Your task to perform on an android device: What's on my calendar today? Image 0: 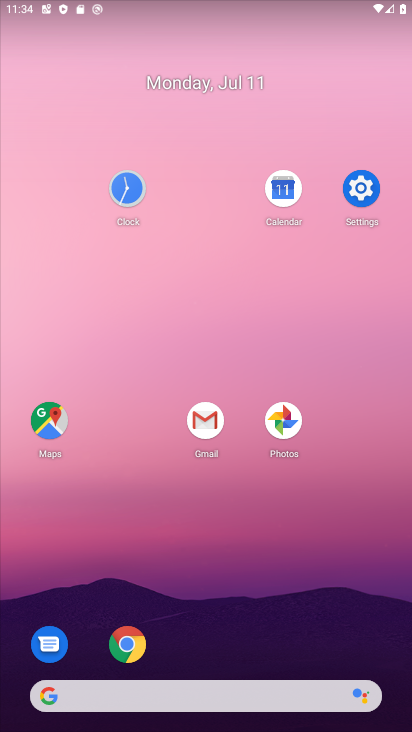
Step 0: click (292, 190)
Your task to perform on an android device: What's on my calendar today? Image 1: 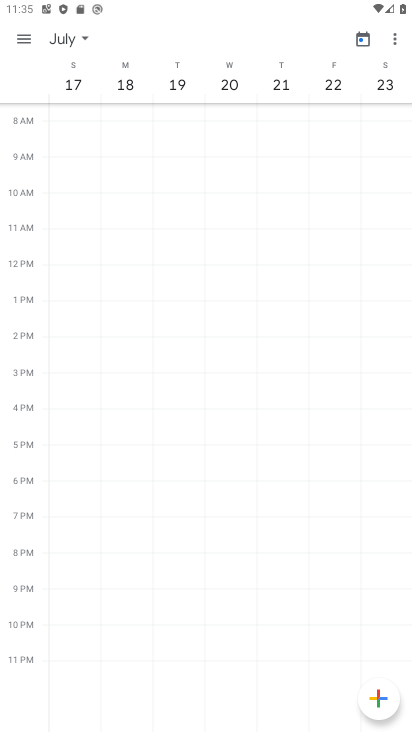
Step 1: press home button
Your task to perform on an android device: What's on my calendar today? Image 2: 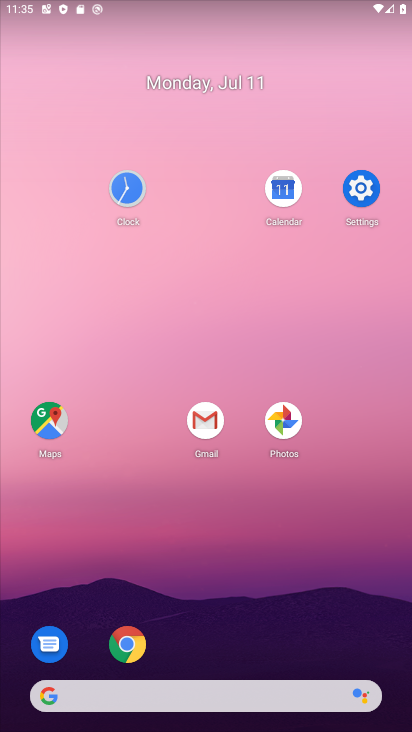
Step 2: click (297, 183)
Your task to perform on an android device: What's on my calendar today? Image 3: 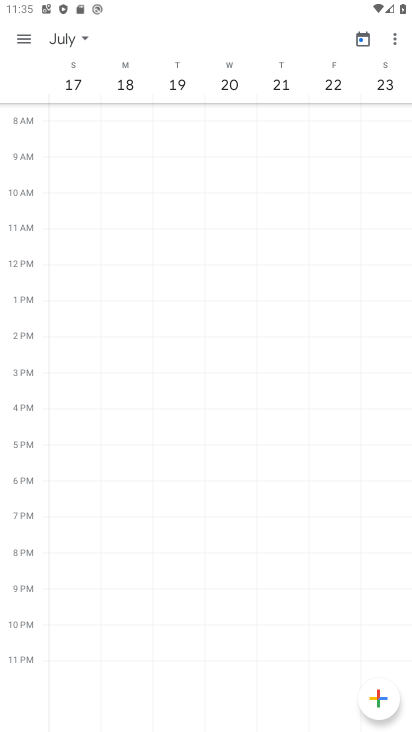
Step 3: drag from (72, 85) to (398, 90)
Your task to perform on an android device: What's on my calendar today? Image 4: 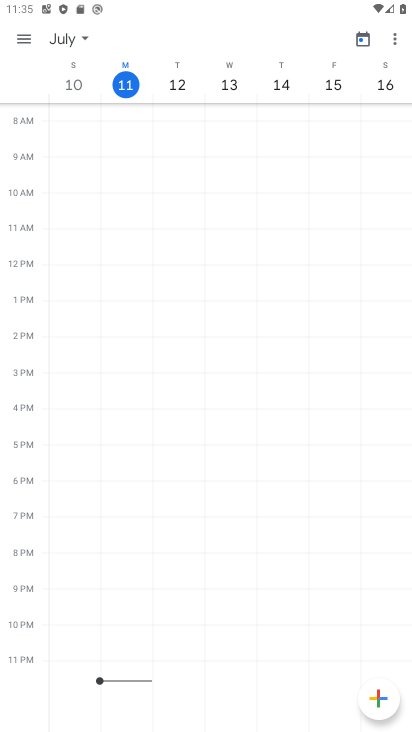
Step 4: click (124, 80)
Your task to perform on an android device: What's on my calendar today? Image 5: 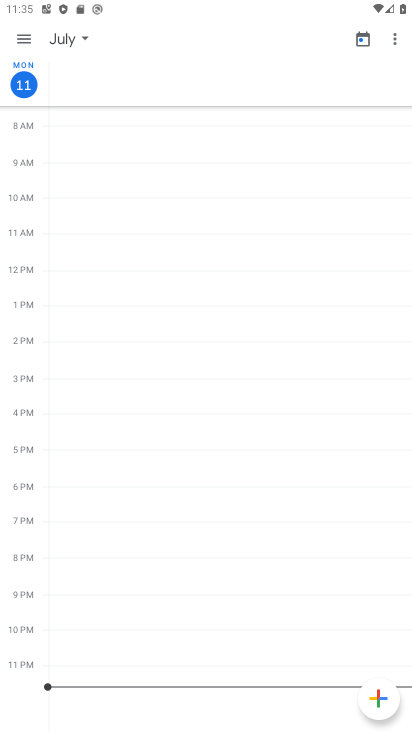
Step 5: task complete